Your task to perform on an android device: Go to internet settings Image 0: 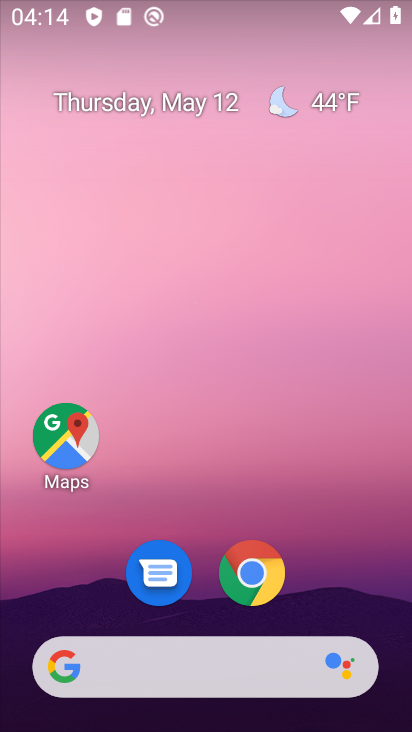
Step 0: drag from (388, 633) to (352, 63)
Your task to perform on an android device: Go to internet settings Image 1: 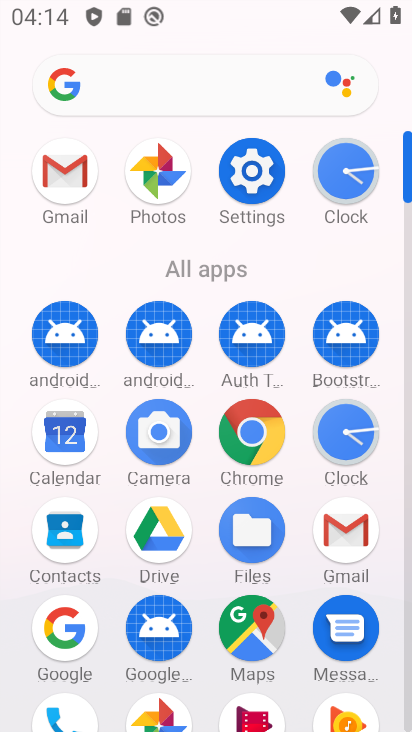
Step 1: click (408, 695)
Your task to perform on an android device: Go to internet settings Image 2: 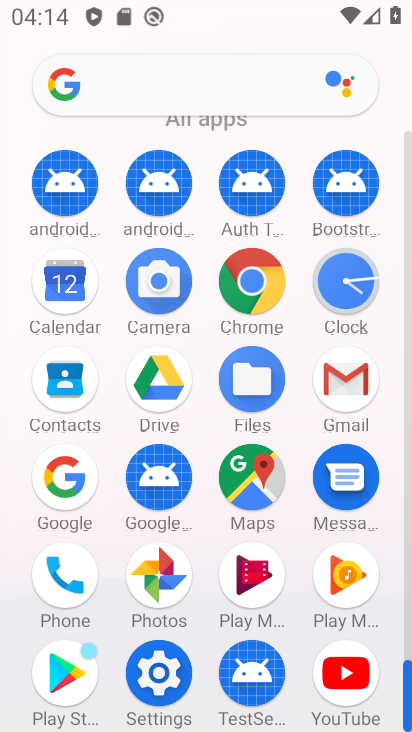
Step 2: click (162, 675)
Your task to perform on an android device: Go to internet settings Image 3: 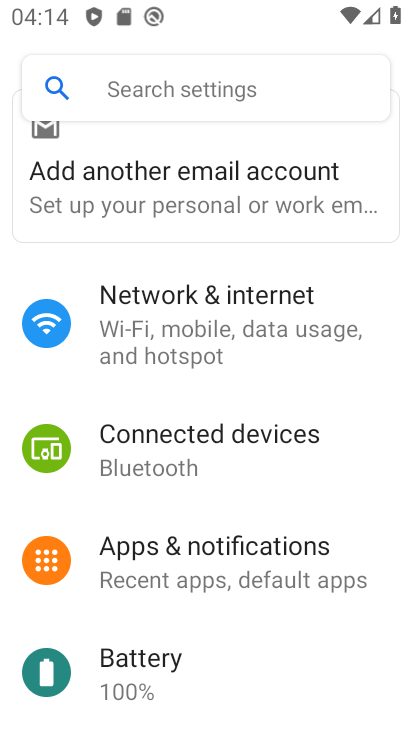
Step 3: click (177, 311)
Your task to perform on an android device: Go to internet settings Image 4: 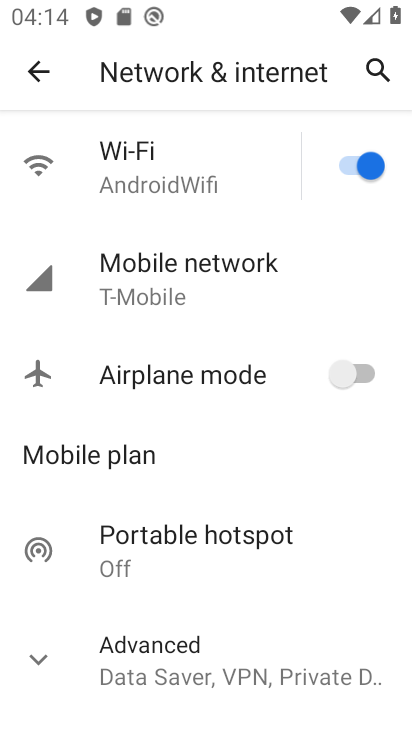
Step 4: click (146, 285)
Your task to perform on an android device: Go to internet settings Image 5: 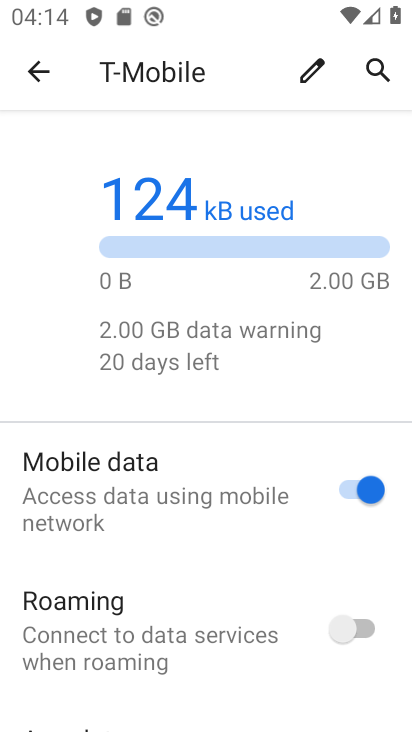
Step 5: task complete